Your task to perform on an android device: find which apps use the phone's location Image 0: 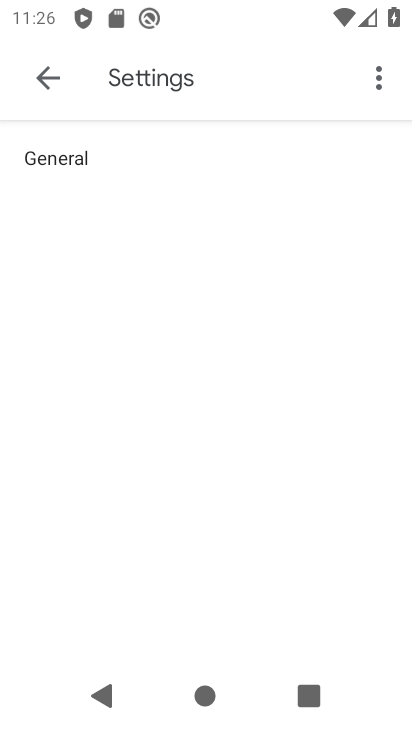
Step 0: press home button
Your task to perform on an android device: find which apps use the phone's location Image 1: 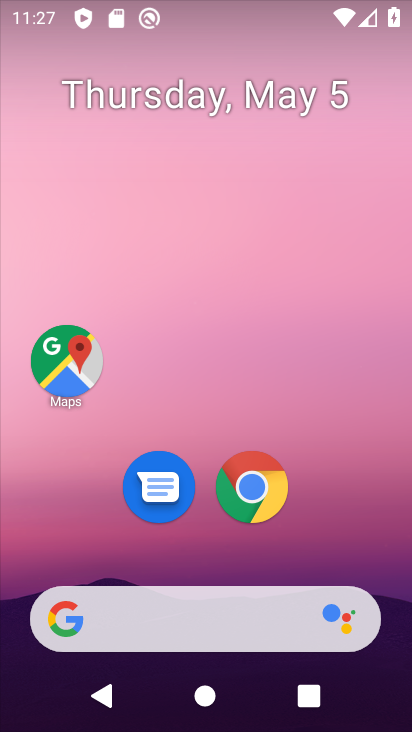
Step 1: drag from (340, 517) to (305, 10)
Your task to perform on an android device: find which apps use the phone's location Image 2: 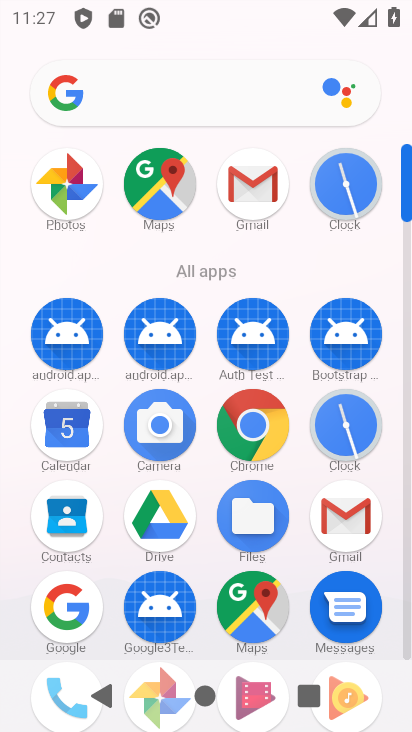
Step 2: click (403, 308)
Your task to perform on an android device: find which apps use the phone's location Image 3: 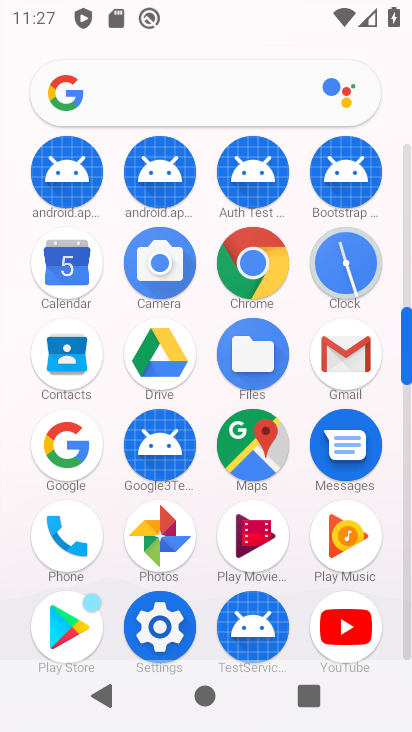
Step 3: click (176, 605)
Your task to perform on an android device: find which apps use the phone's location Image 4: 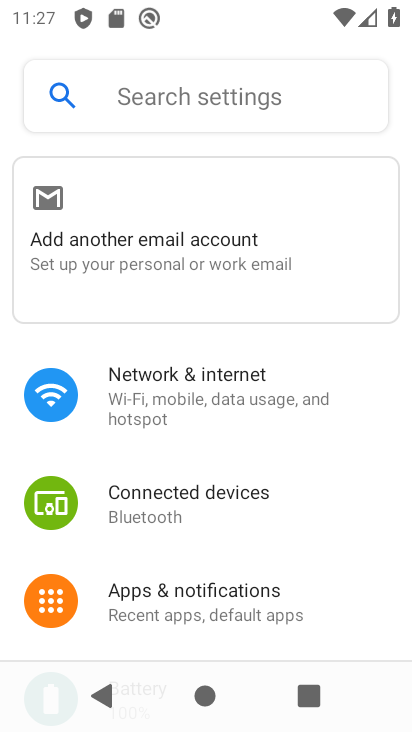
Step 4: drag from (162, 603) to (224, 182)
Your task to perform on an android device: find which apps use the phone's location Image 5: 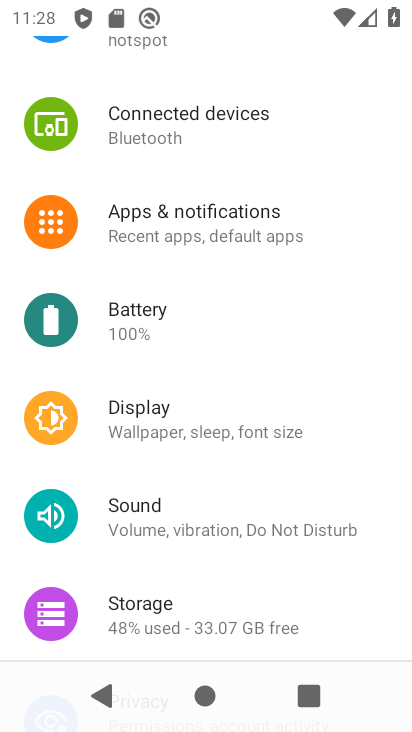
Step 5: drag from (212, 582) to (229, 194)
Your task to perform on an android device: find which apps use the phone's location Image 6: 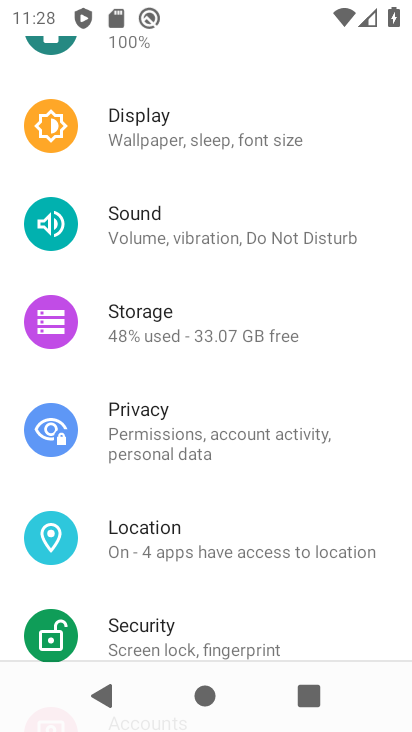
Step 6: drag from (176, 633) to (190, 377)
Your task to perform on an android device: find which apps use the phone's location Image 7: 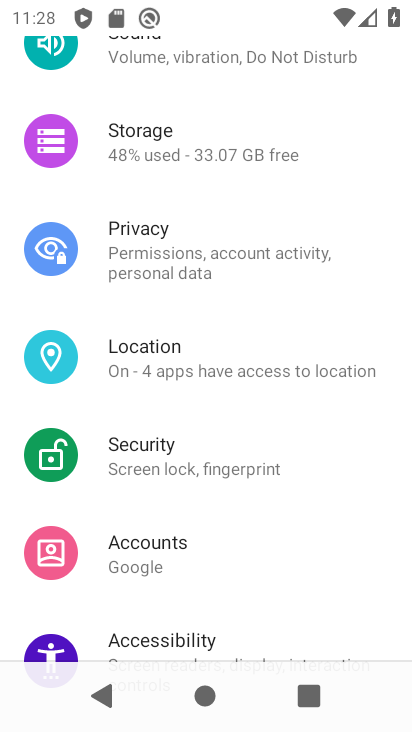
Step 7: click (179, 375)
Your task to perform on an android device: find which apps use the phone's location Image 8: 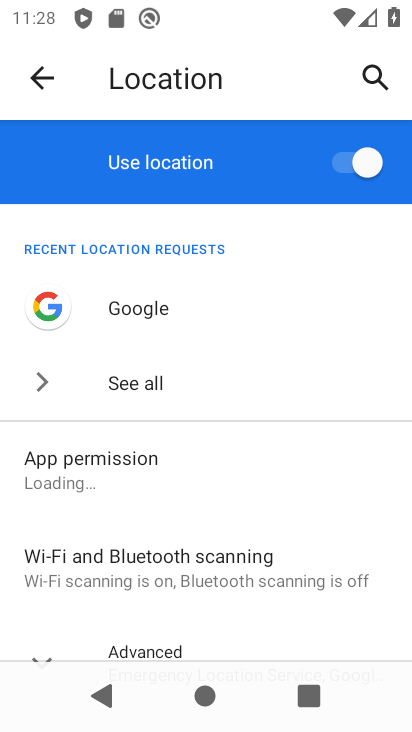
Step 8: click (99, 441)
Your task to perform on an android device: find which apps use the phone's location Image 9: 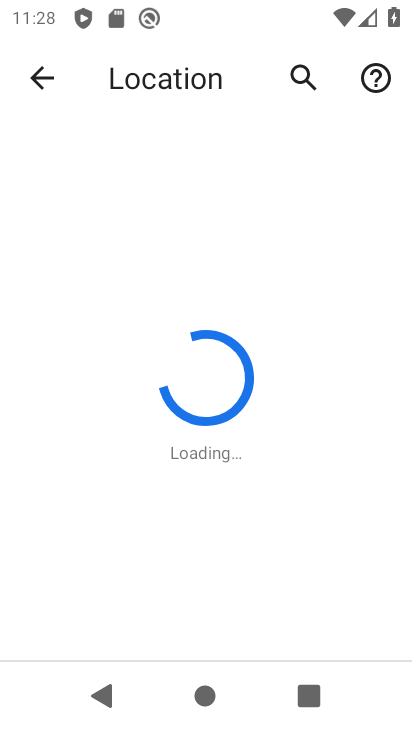
Step 9: task complete